Your task to perform on an android device: Open calendar and show me the second week of next month Image 0: 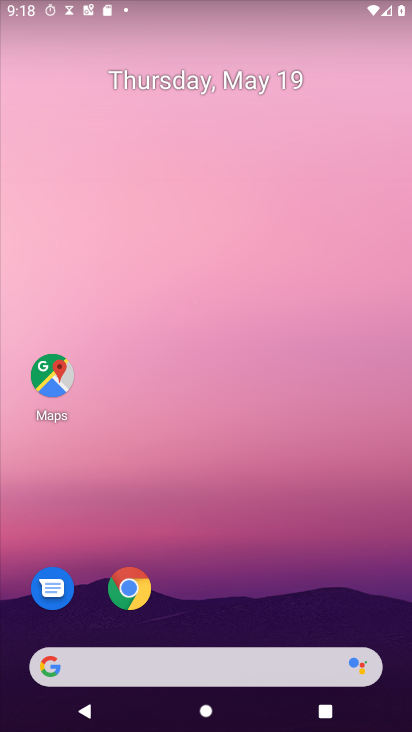
Step 0: press home button
Your task to perform on an android device: Open calendar and show me the second week of next month Image 1: 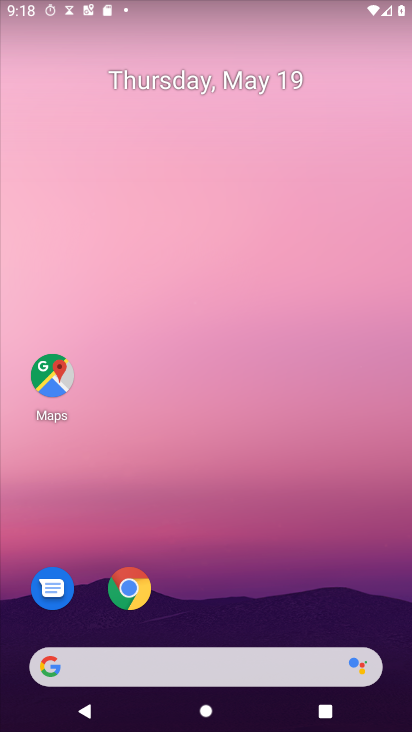
Step 1: drag from (149, 666) to (274, 142)
Your task to perform on an android device: Open calendar and show me the second week of next month Image 2: 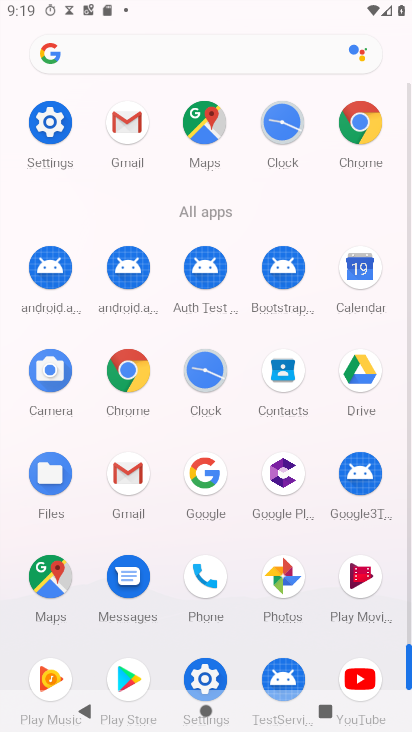
Step 2: click (359, 286)
Your task to perform on an android device: Open calendar and show me the second week of next month Image 3: 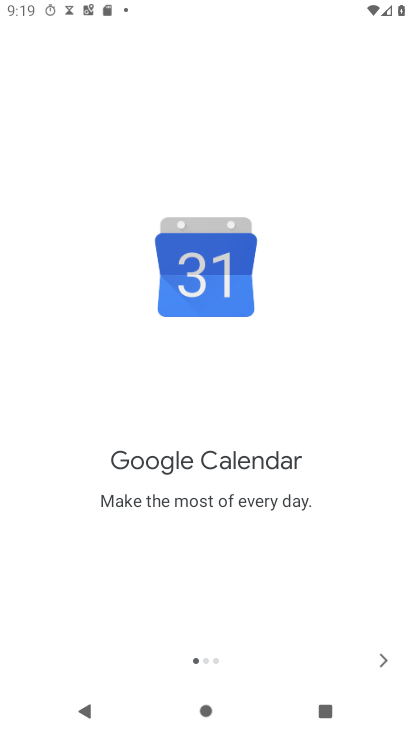
Step 3: click (388, 662)
Your task to perform on an android device: Open calendar and show me the second week of next month Image 4: 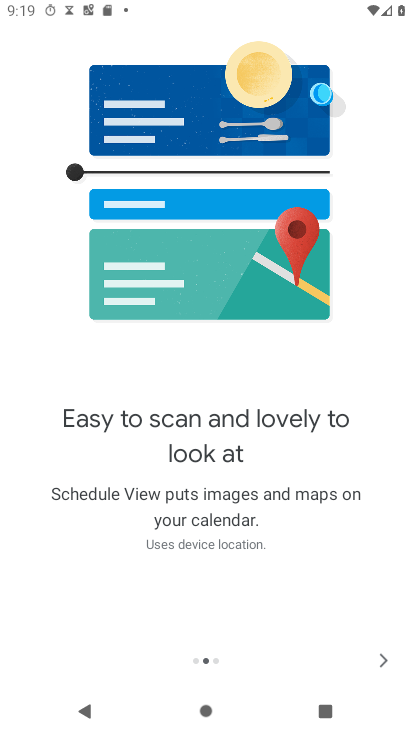
Step 4: click (375, 671)
Your task to perform on an android device: Open calendar and show me the second week of next month Image 5: 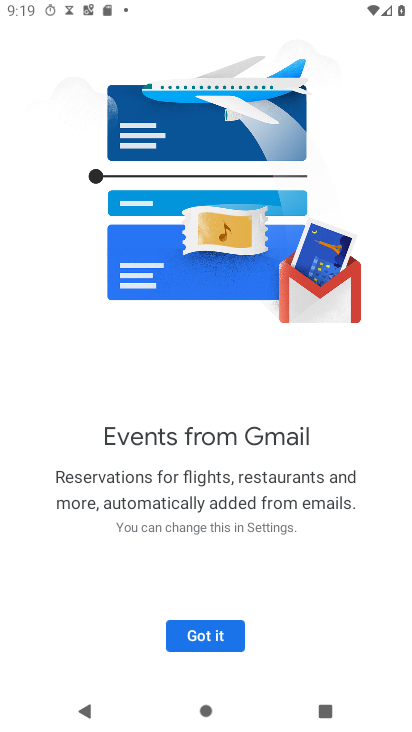
Step 5: click (220, 626)
Your task to perform on an android device: Open calendar and show me the second week of next month Image 6: 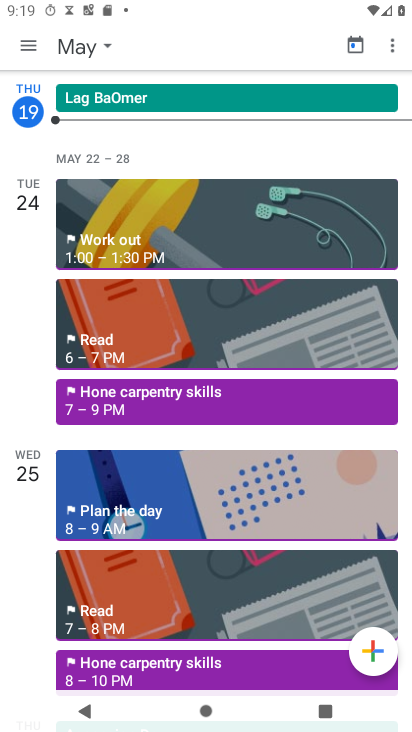
Step 6: click (77, 50)
Your task to perform on an android device: Open calendar and show me the second week of next month Image 7: 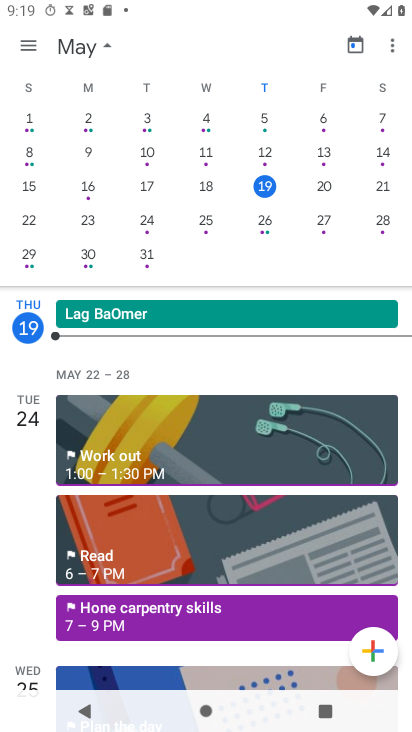
Step 7: drag from (380, 161) to (64, 169)
Your task to perform on an android device: Open calendar and show me the second week of next month Image 8: 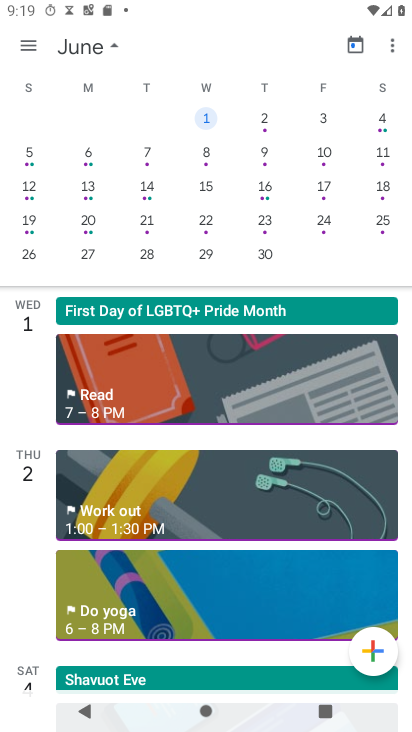
Step 8: click (28, 153)
Your task to perform on an android device: Open calendar and show me the second week of next month Image 9: 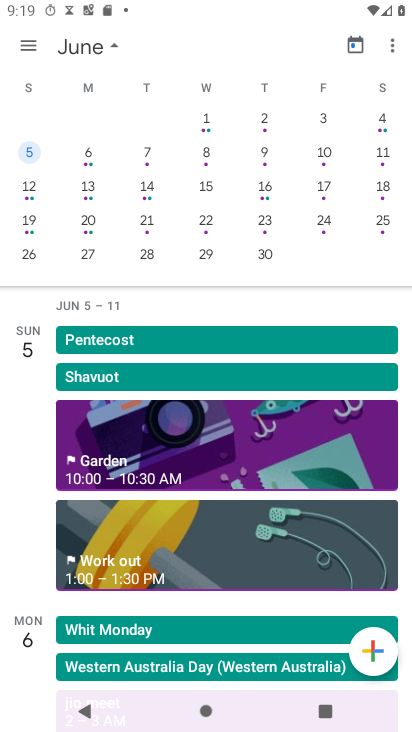
Step 9: click (29, 47)
Your task to perform on an android device: Open calendar and show me the second week of next month Image 10: 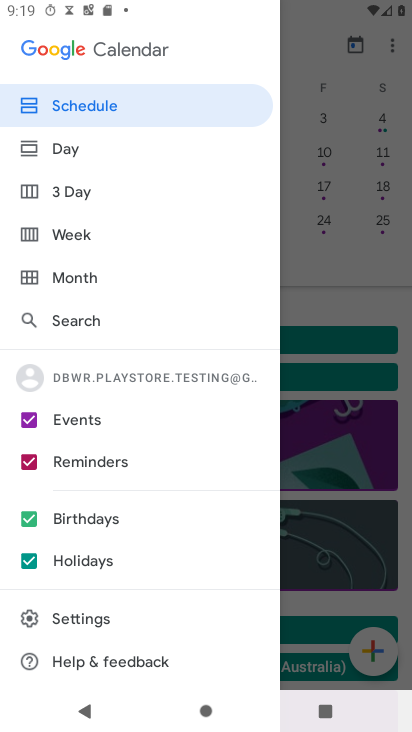
Step 10: click (75, 240)
Your task to perform on an android device: Open calendar and show me the second week of next month Image 11: 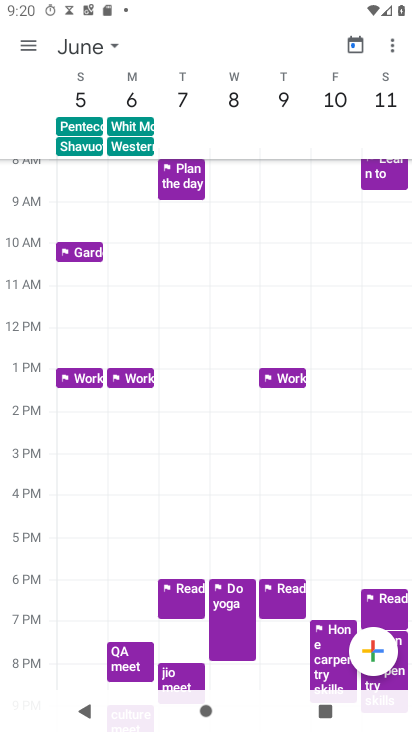
Step 11: task complete